Your task to perform on an android device: turn off notifications settings in the gmail app Image 0: 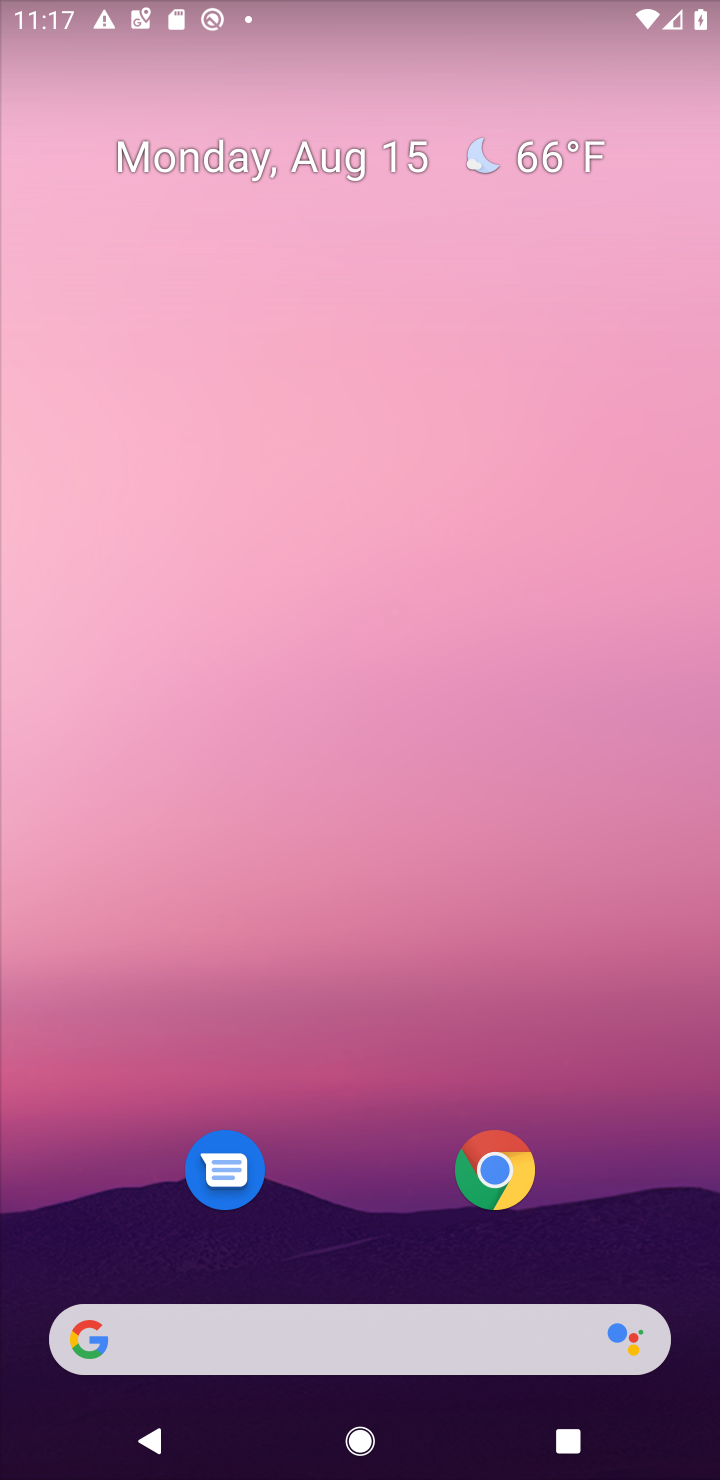
Step 0: press home button
Your task to perform on an android device: turn off notifications settings in the gmail app Image 1: 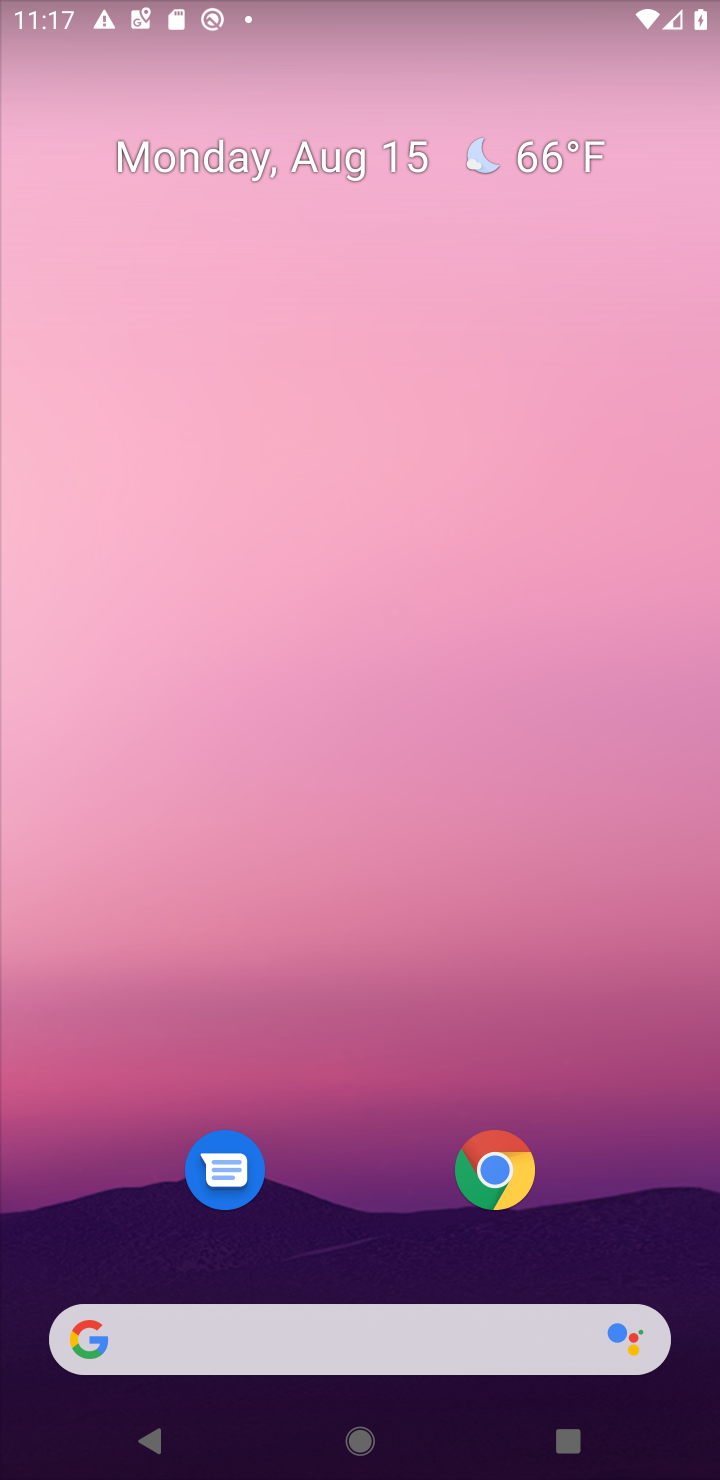
Step 1: drag from (371, 1271) to (439, 554)
Your task to perform on an android device: turn off notifications settings in the gmail app Image 2: 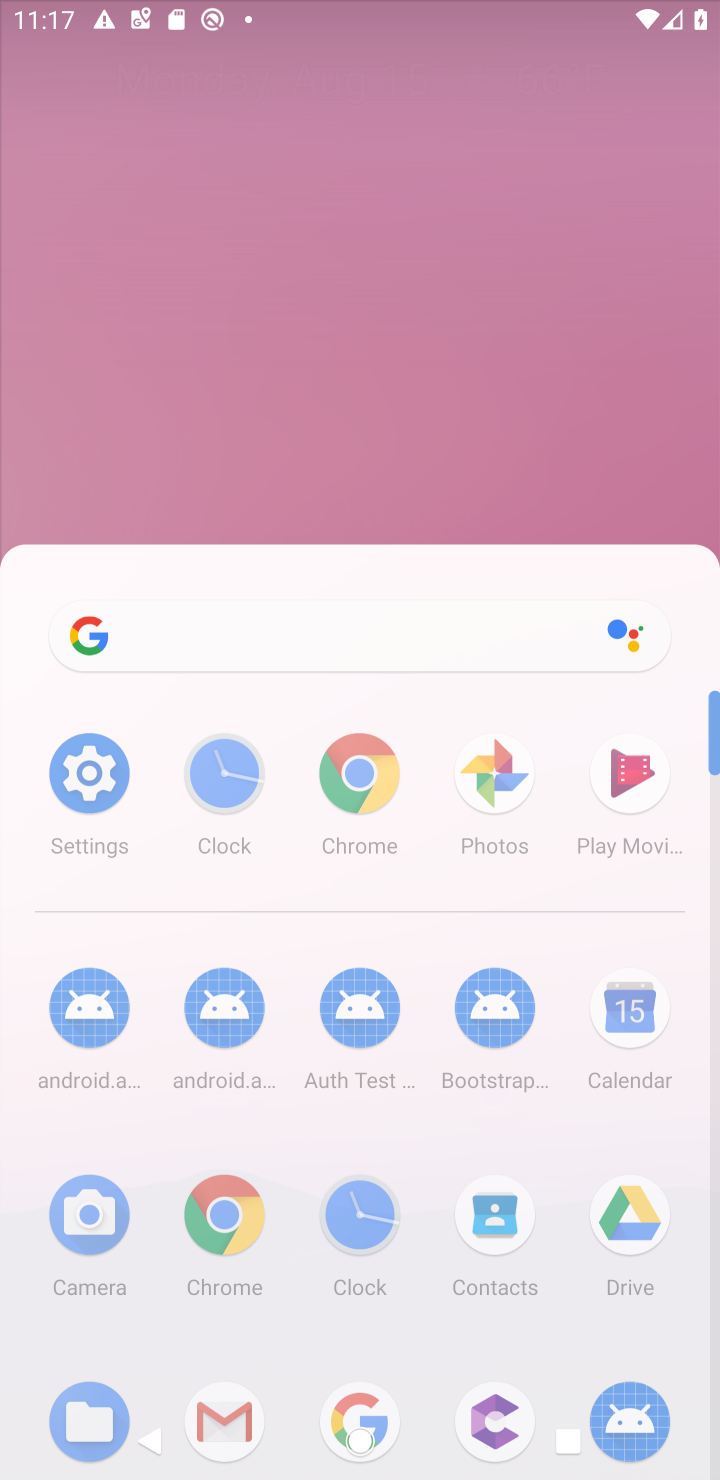
Step 2: press home button
Your task to perform on an android device: turn off notifications settings in the gmail app Image 3: 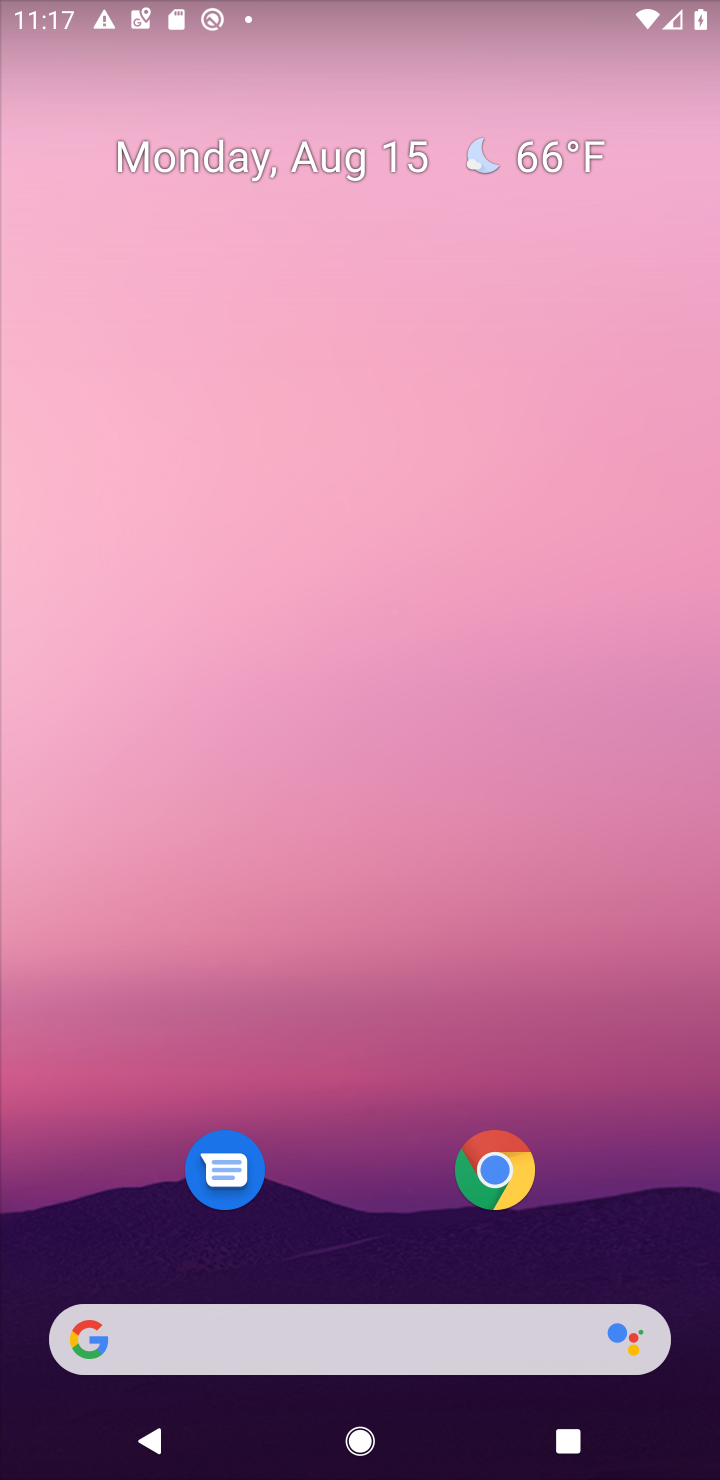
Step 3: drag from (386, 477) to (386, 1)
Your task to perform on an android device: turn off notifications settings in the gmail app Image 4: 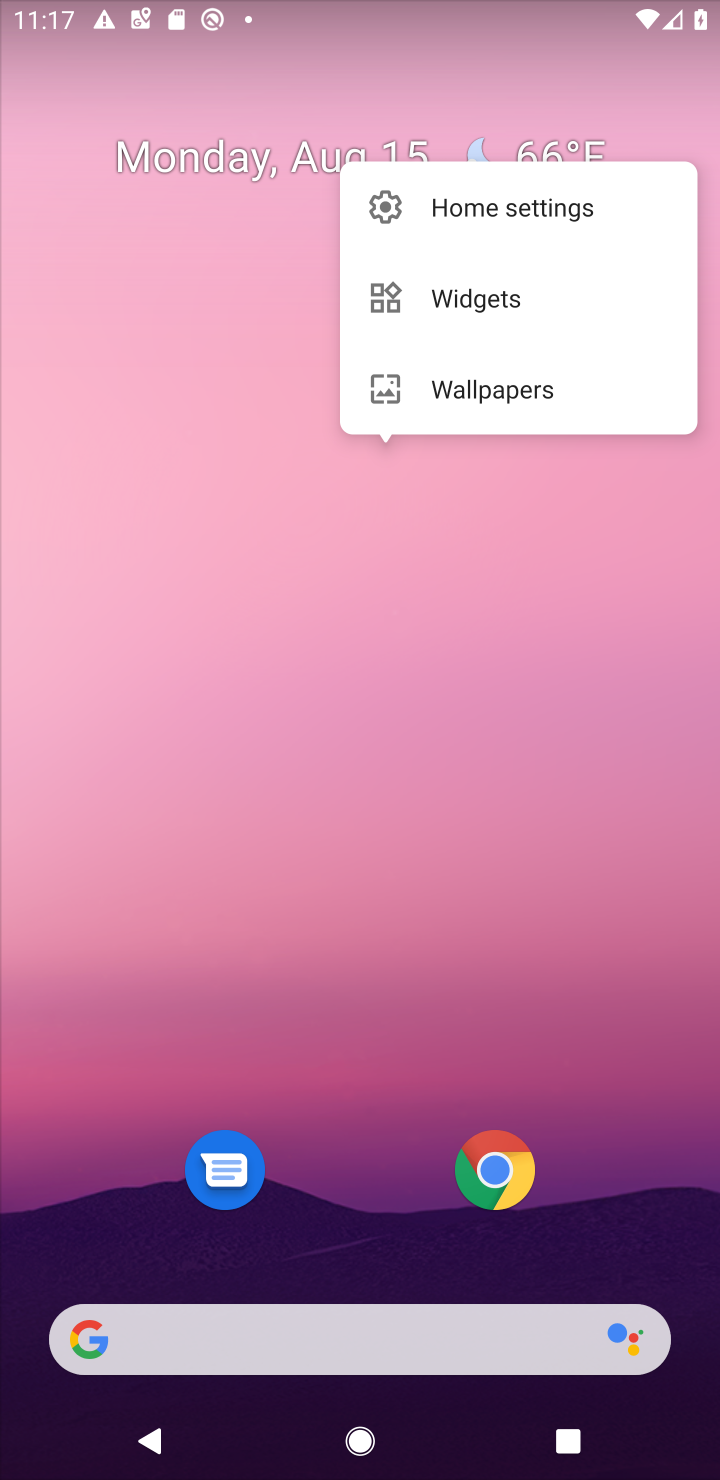
Step 4: click (367, 1246)
Your task to perform on an android device: turn off notifications settings in the gmail app Image 5: 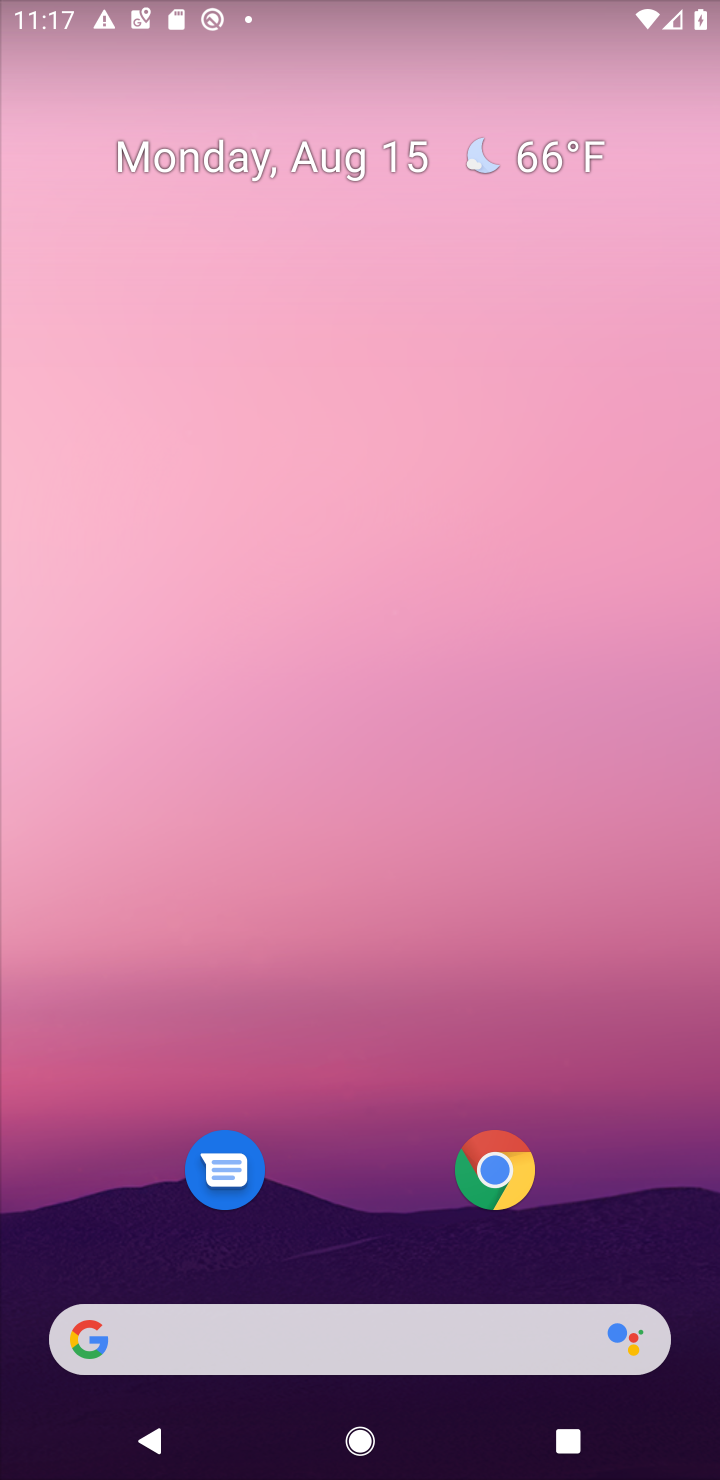
Step 5: drag from (342, 912) to (355, 96)
Your task to perform on an android device: turn off notifications settings in the gmail app Image 6: 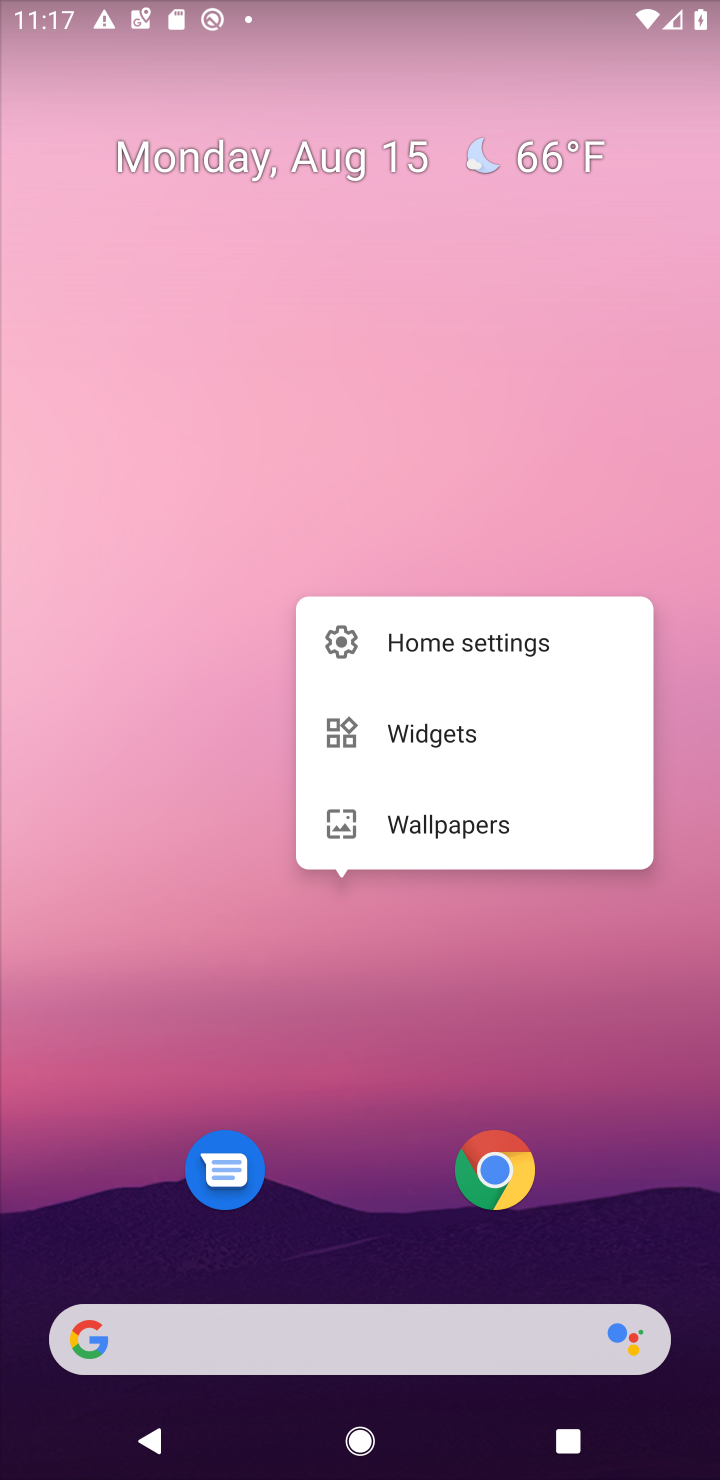
Step 6: click (387, 1186)
Your task to perform on an android device: turn off notifications settings in the gmail app Image 7: 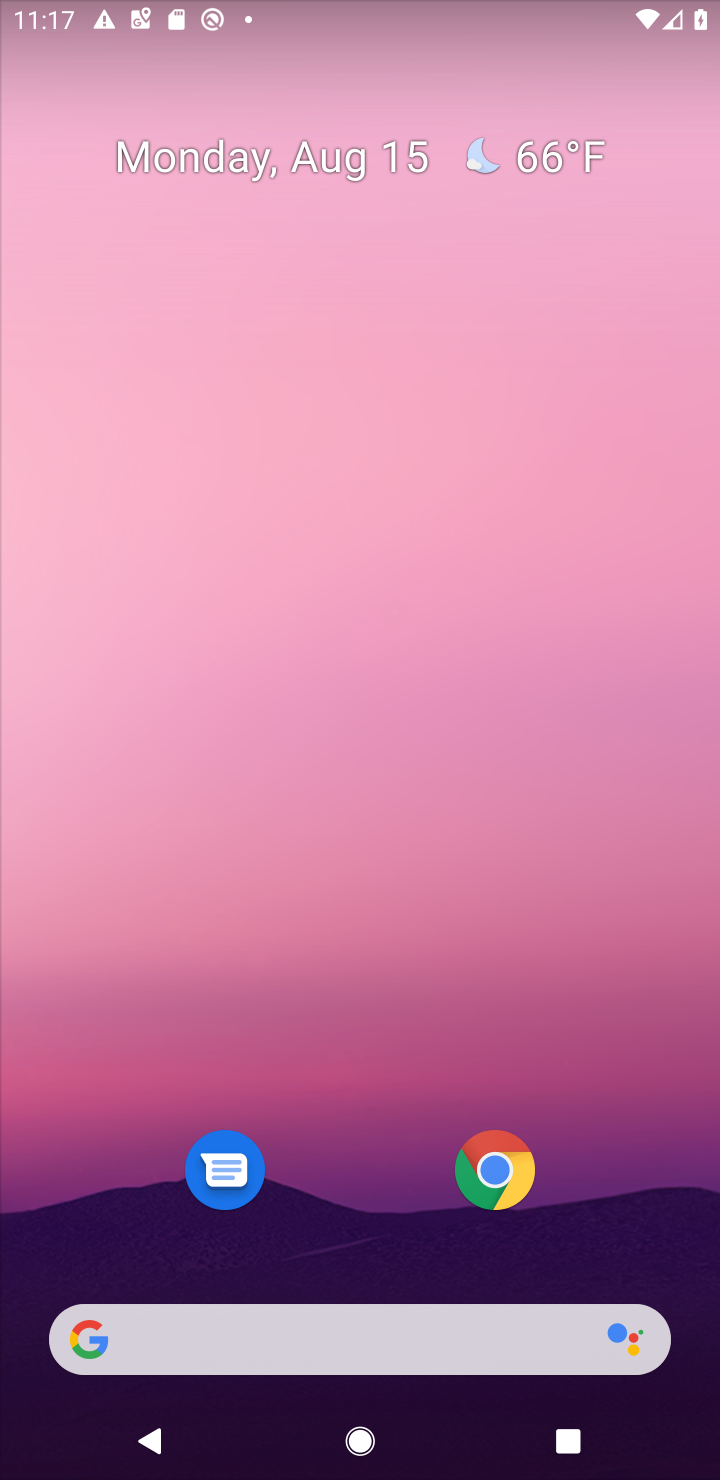
Step 7: drag from (367, 1272) to (387, 0)
Your task to perform on an android device: turn off notifications settings in the gmail app Image 8: 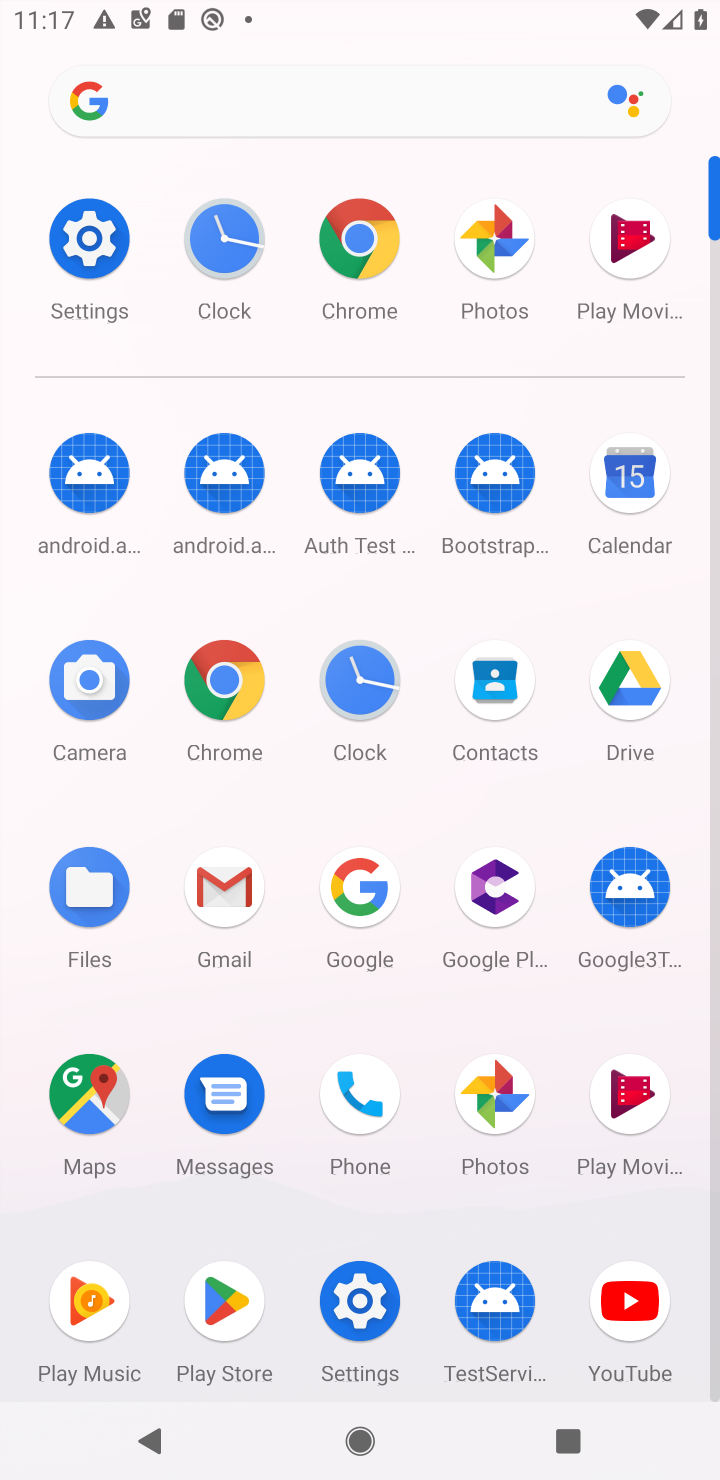
Step 8: click (218, 878)
Your task to perform on an android device: turn off notifications settings in the gmail app Image 9: 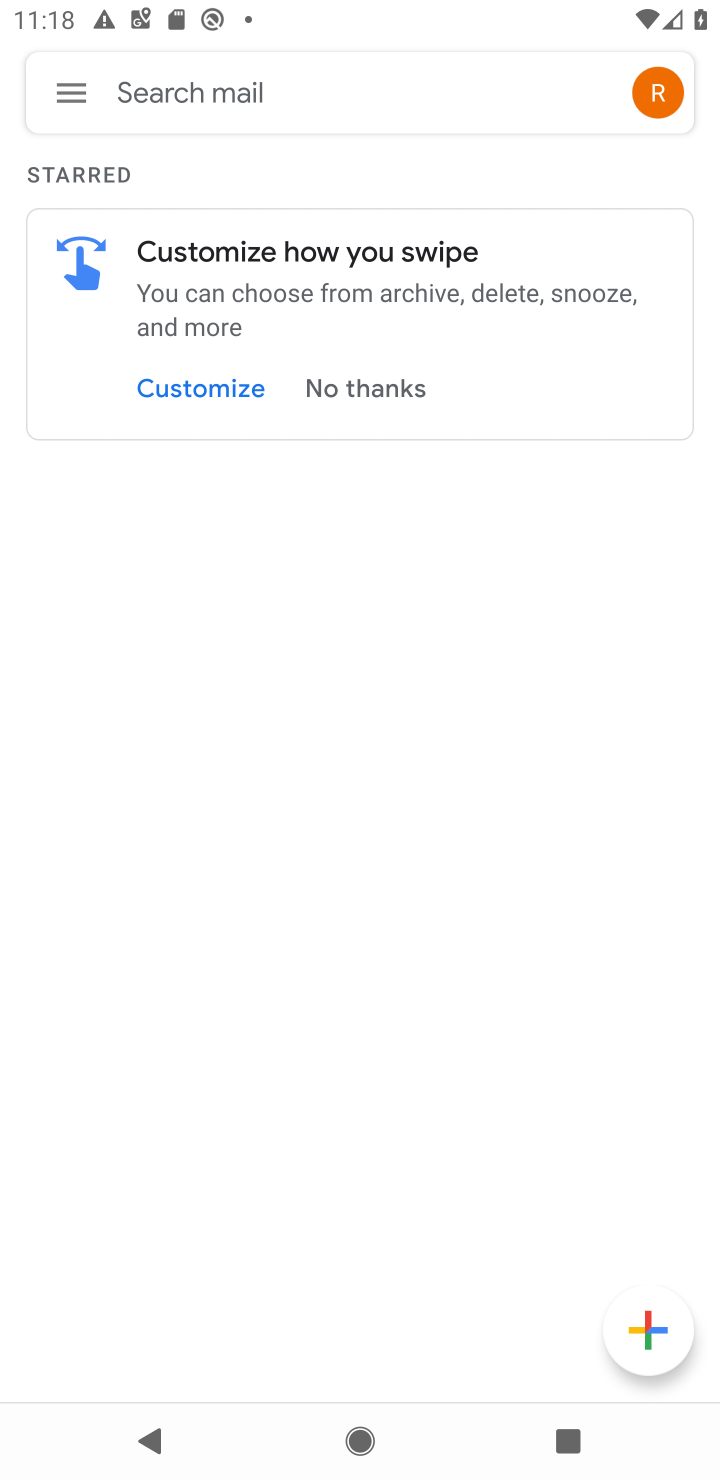
Step 9: click (66, 92)
Your task to perform on an android device: turn off notifications settings in the gmail app Image 10: 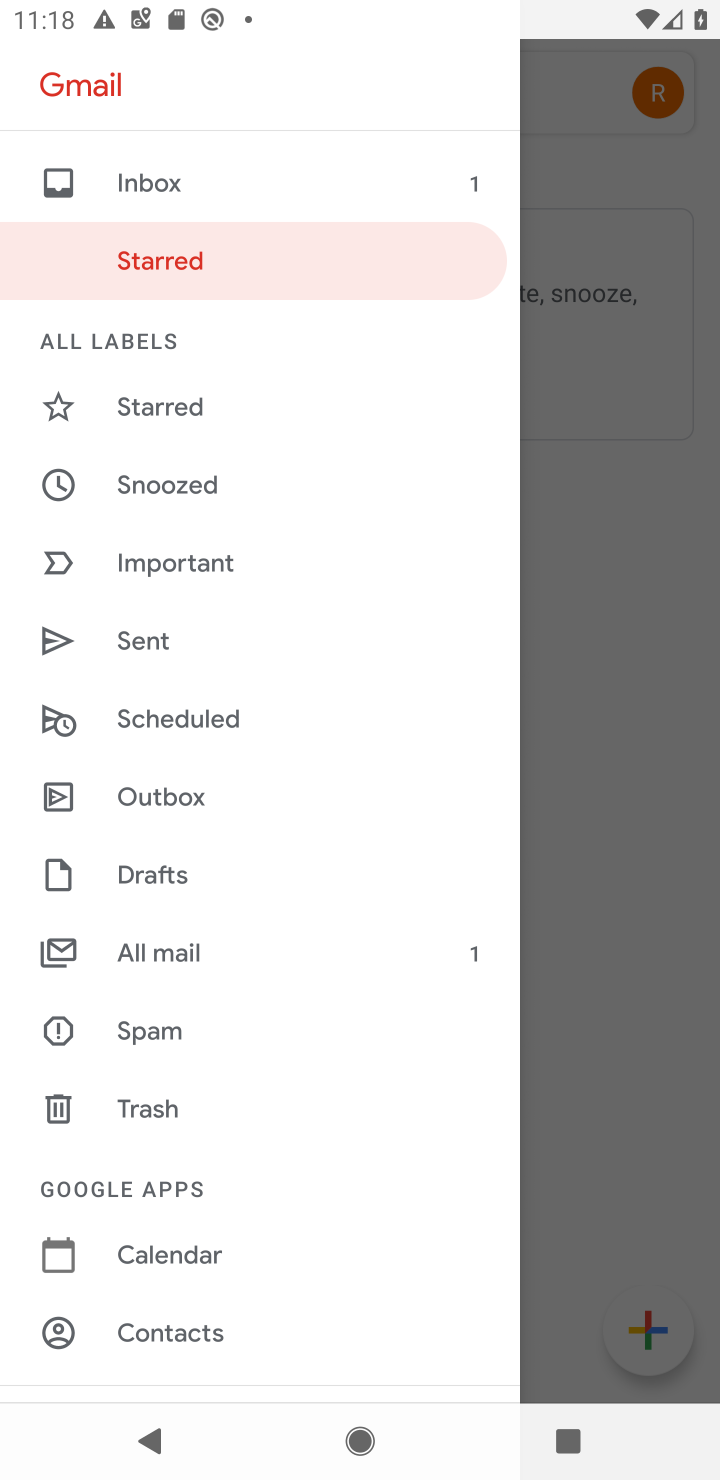
Step 10: drag from (235, 1292) to (286, 237)
Your task to perform on an android device: turn off notifications settings in the gmail app Image 11: 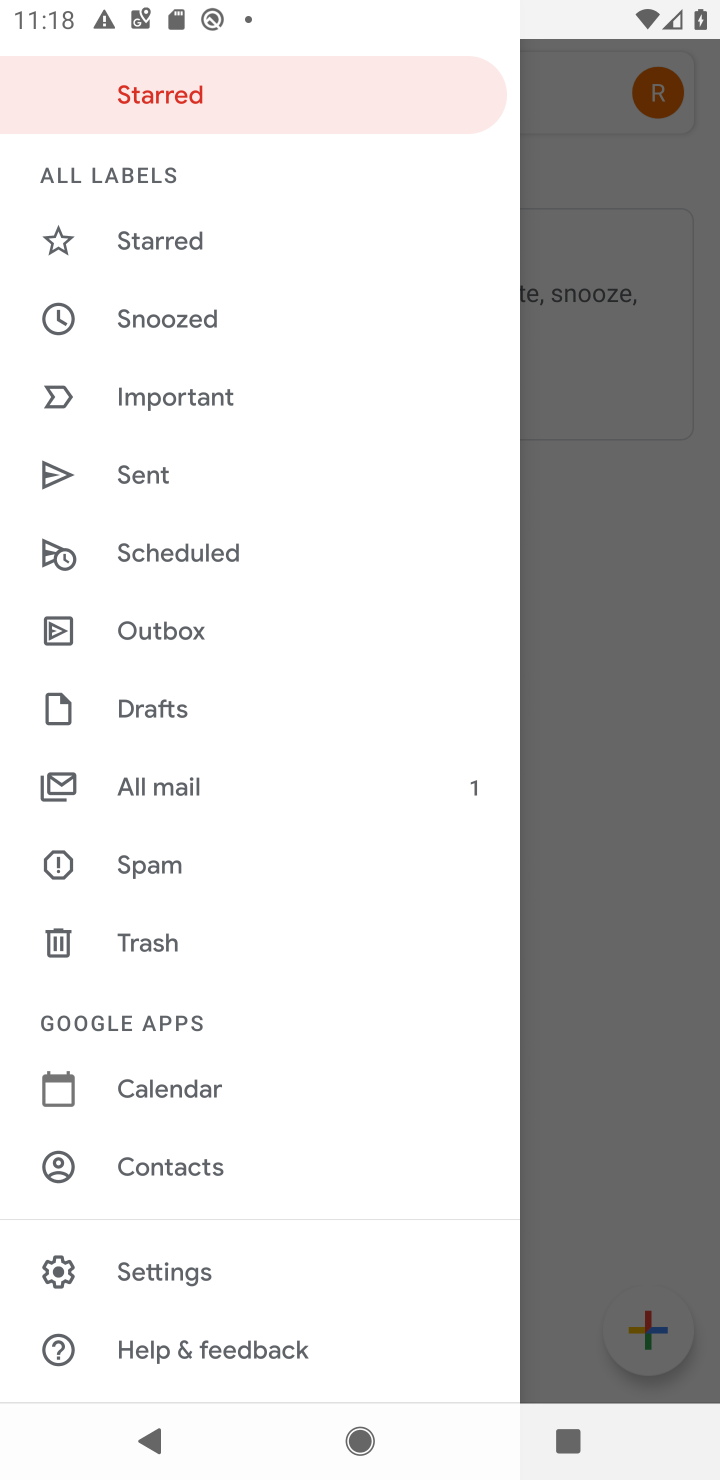
Step 11: click (231, 1267)
Your task to perform on an android device: turn off notifications settings in the gmail app Image 12: 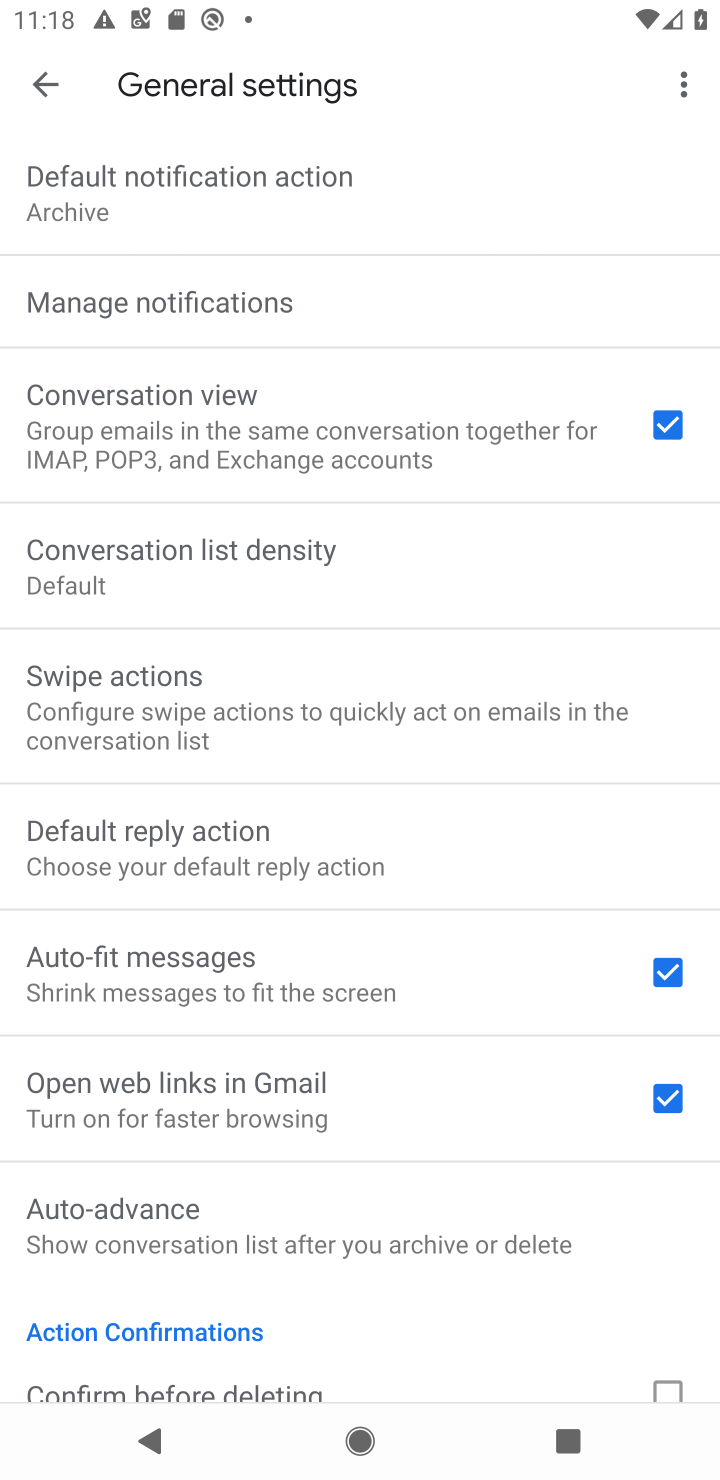
Step 12: click (316, 295)
Your task to perform on an android device: turn off notifications settings in the gmail app Image 13: 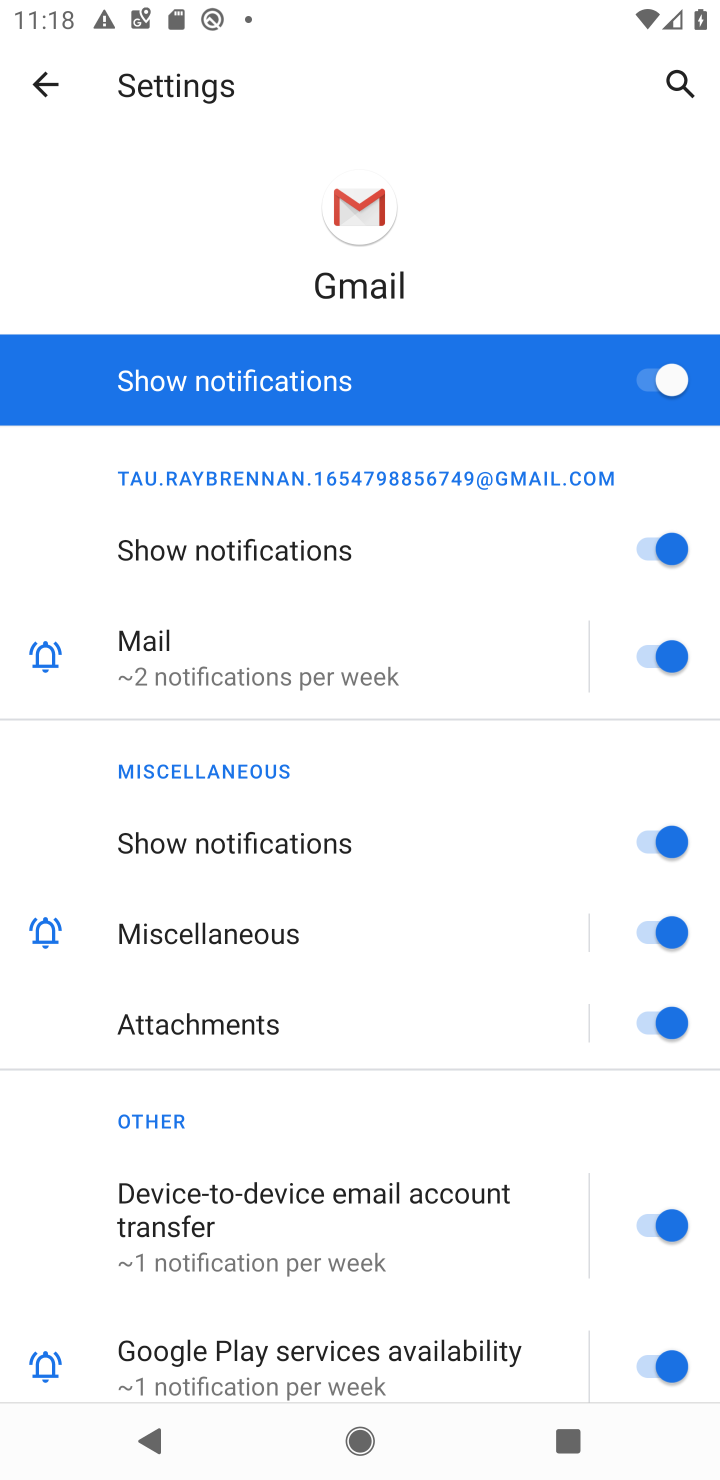
Step 13: click (647, 385)
Your task to perform on an android device: turn off notifications settings in the gmail app Image 14: 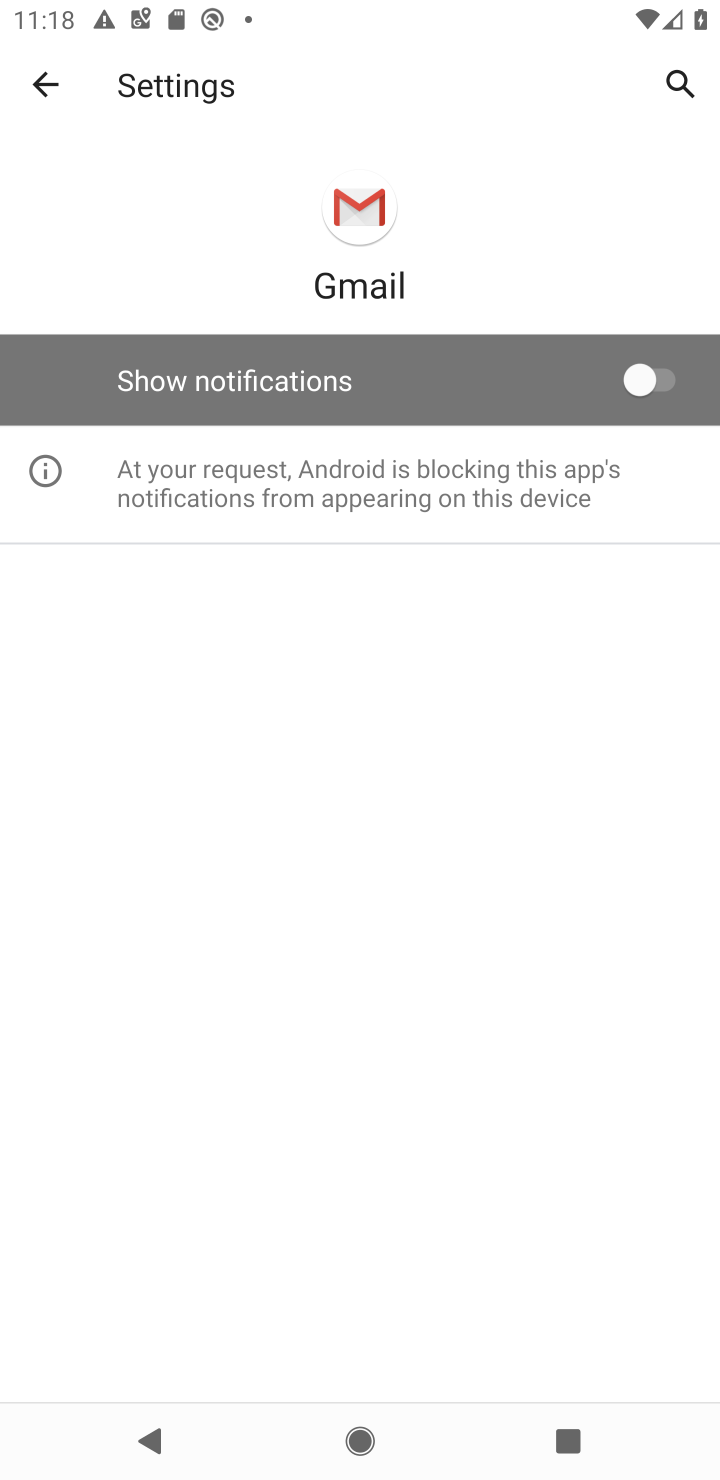
Step 14: task complete